Your task to perform on an android device: open app "Microsoft Authenticator" (install if not already installed) and enter user name: "Cornell@yahoo.com" and password: "bothersome" Image 0: 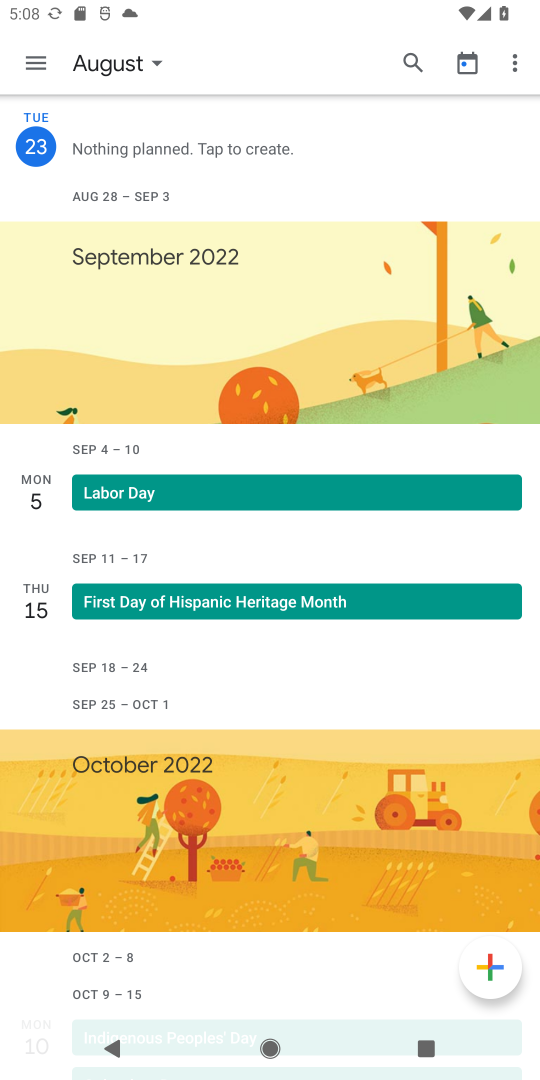
Step 0: press home button
Your task to perform on an android device: open app "Microsoft Authenticator" (install if not already installed) and enter user name: "Cornell@yahoo.com" and password: "bothersome" Image 1: 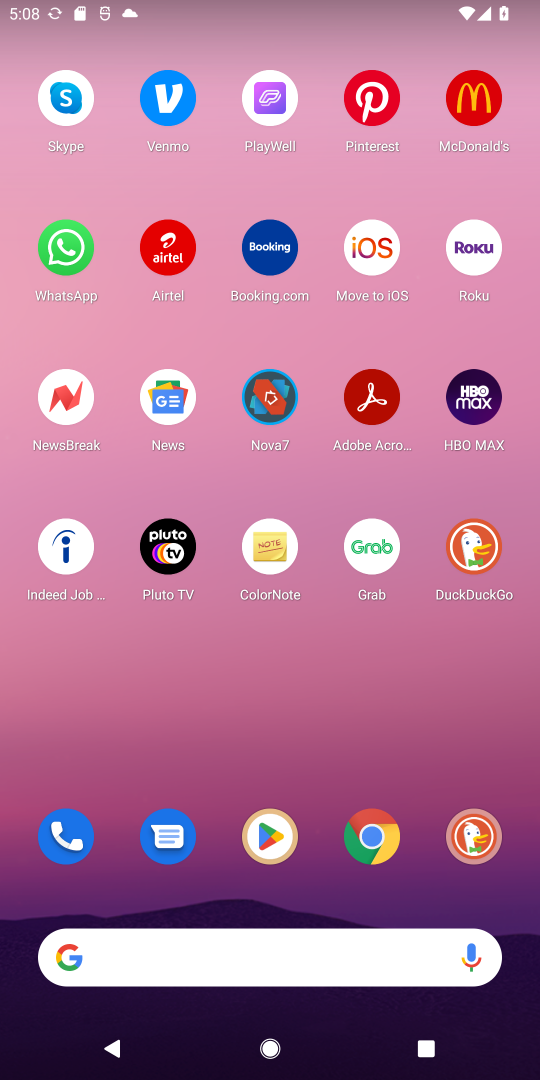
Step 1: click (276, 838)
Your task to perform on an android device: open app "Microsoft Authenticator" (install if not already installed) and enter user name: "Cornell@yahoo.com" and password: "bothersome" Image 2: 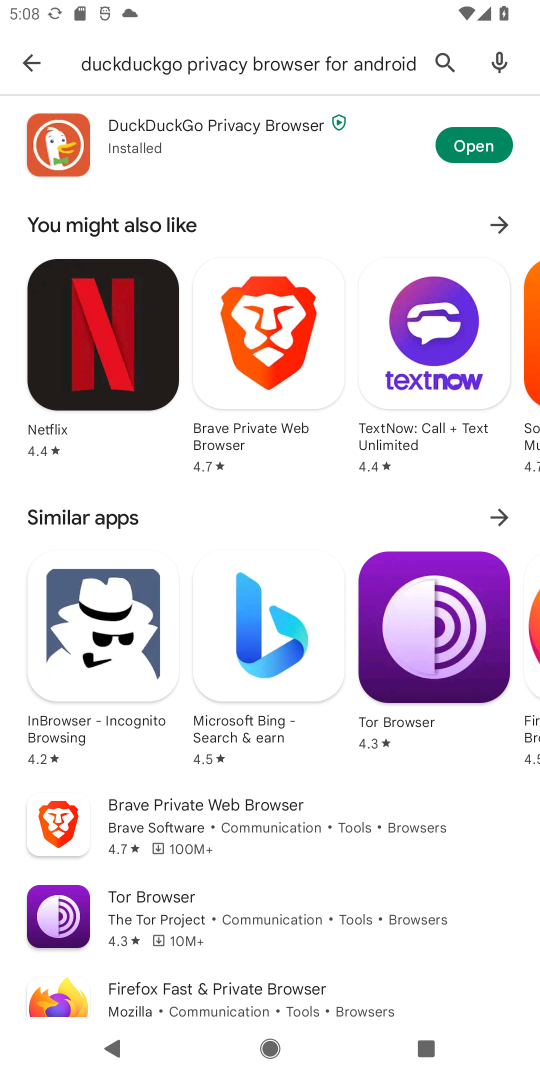
Step 2: click (441, 61)
Your task to perform on an android device: open app "Microsoft Authenticator" (install if not already installed) and enter user name: "Cornell@yahoo.com" and password: "bothersome" Image 3: 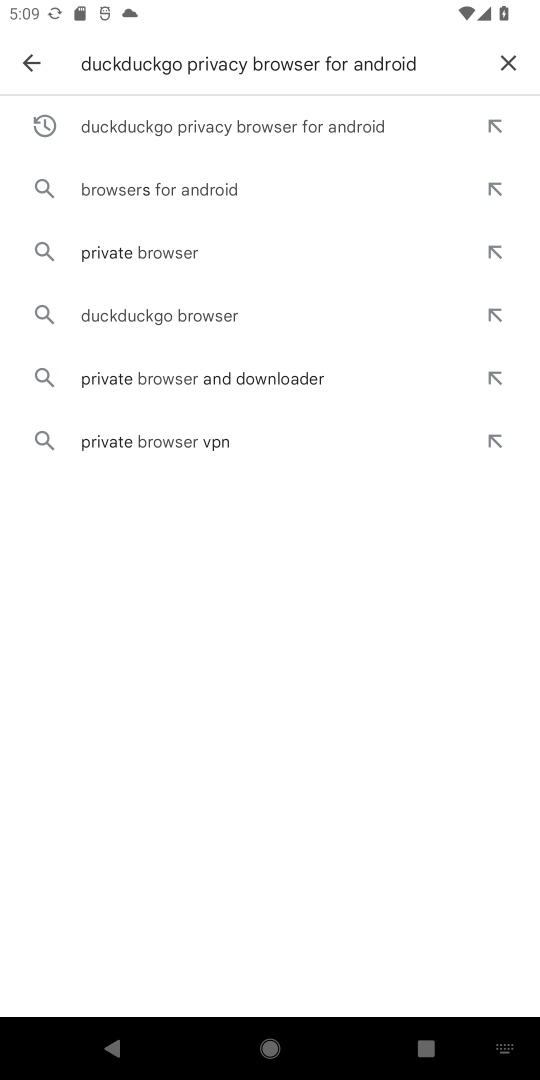
Step 3: click (507, 62)
Your task to perform on an android device: open app "Microsoft Authenticator" (install if not already installed) and enter user name: "Cornell@yahoo.com" and password: "bothersome" Image 4: 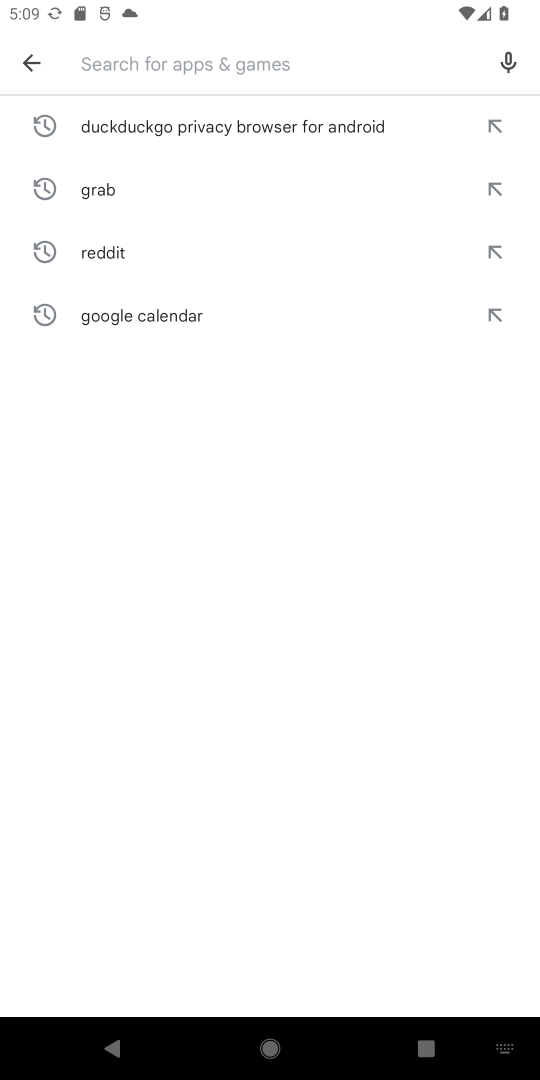
Step 4: type "Microsoft Authenticator"
Your task to perform on an android device: open app "Microsoft Authenticator" (install if not already installed) and enter user name: "Cornell@yahoo.com" and password: "bothersome" Image 5: 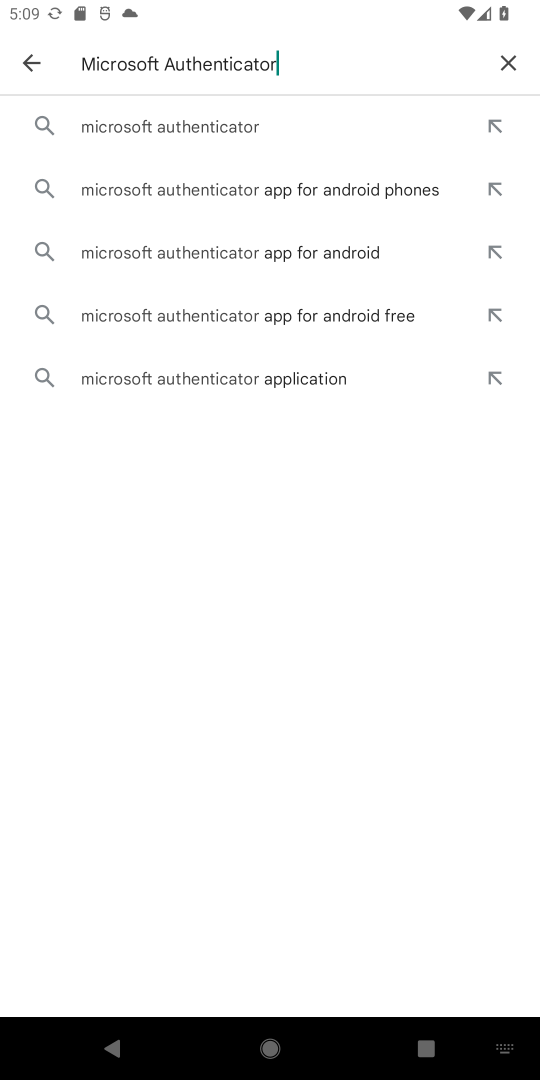
Step 5: click (162, 131)
Your task to perform on an android device: open app "Microsoft Authenticator" (install if not already installed) and enter user name: "Cornell@yahoo.com" and password: "bothersome" Image 6: 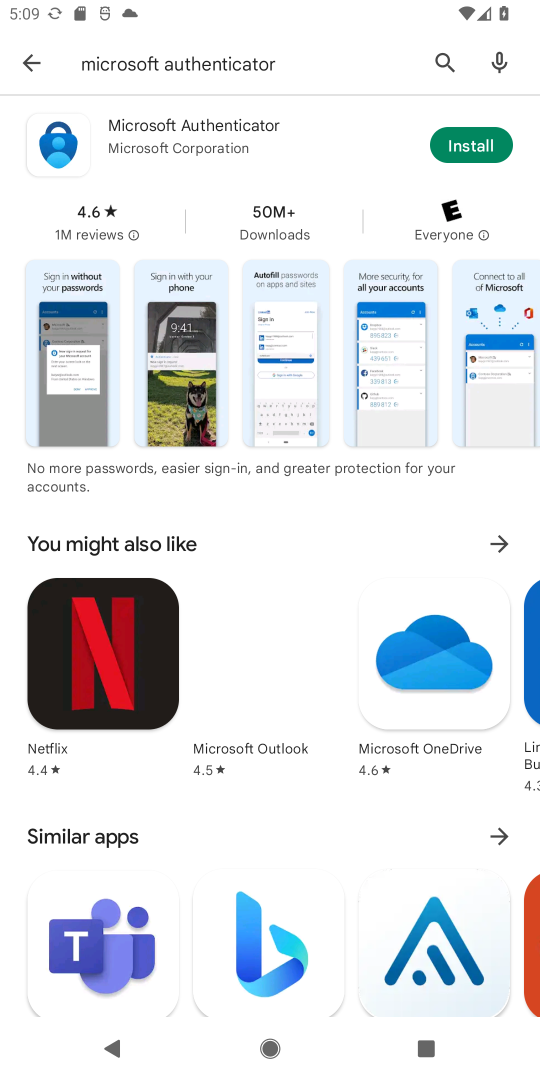
Step 6: click (461, 143)
Your task to perform on an android device: open app "Microsoft Authenticator" (install if not already installed) and enter user name: "Cornell@yahoo.com" and password: "bothersome" Image 7: 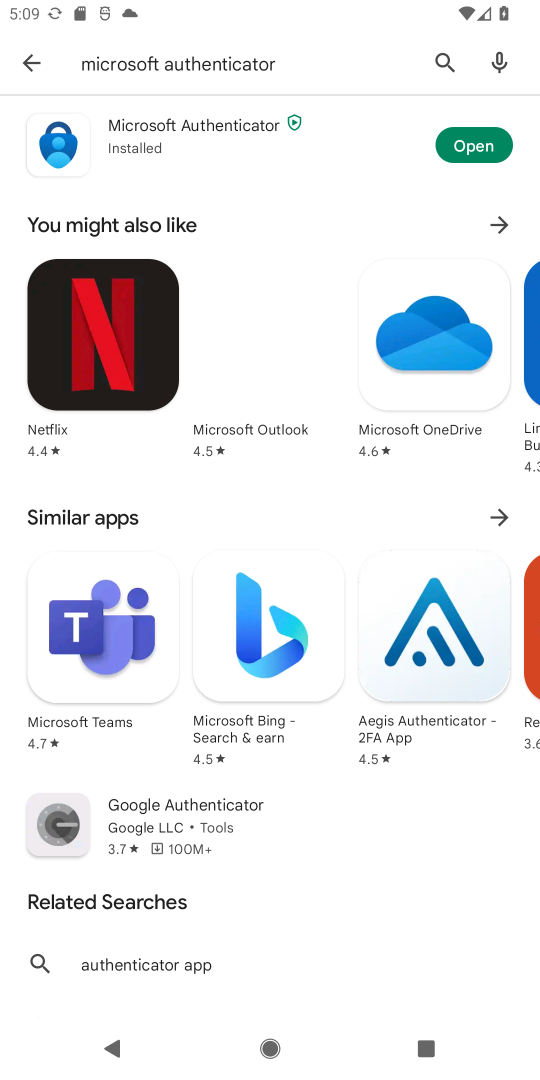
Step 7: click (473, 146)
Your task to perform on an android device: open app "Microsoft Authenticator" (install if not already installed) and enter user name: "Cornell@yahoo.com" and password: "bothersome" Image 8: 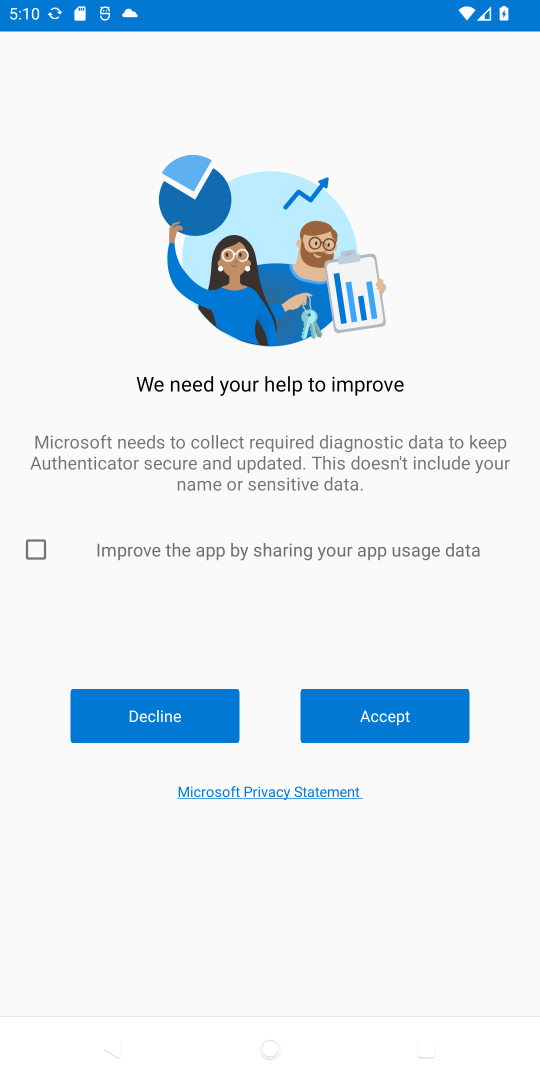
Step 8: click (34, 547)
Your task to perform on an android device: open app "Microsoft Authenticator" (install if not already installed) and enter user name: "Cornell@yahoo.com" and password: "bothersome" Image 9: 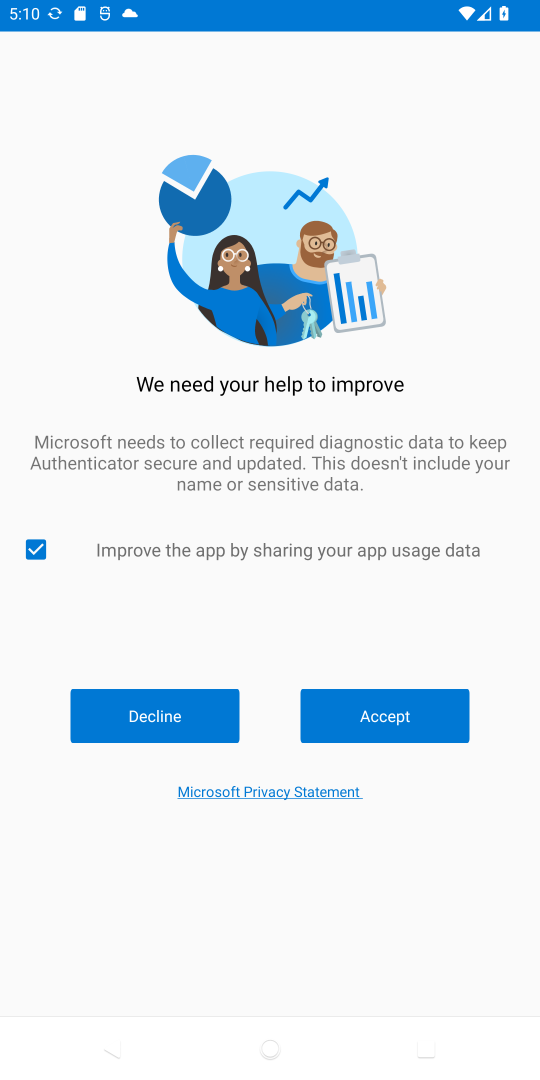
Step 9: click (394, 716)
Your task to perform on an android device: open app "Microsoft Authenticator" (install if not already installed) and enter user name: "Cornell@yahoo.com" and password: "bothersome" Image 10: 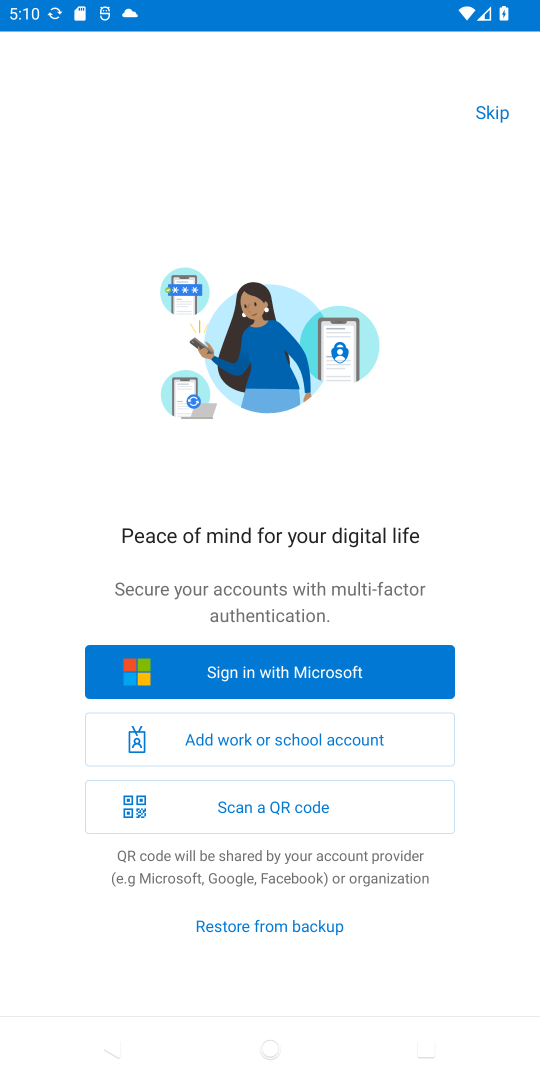
Step 10: click (265, 672)
Your task to perform on an android device: open app "Microsoft Authenticator" (install if not already installed) and enter user name: "Cornell@yahoo.com" and password: "bothersome" Image 11: 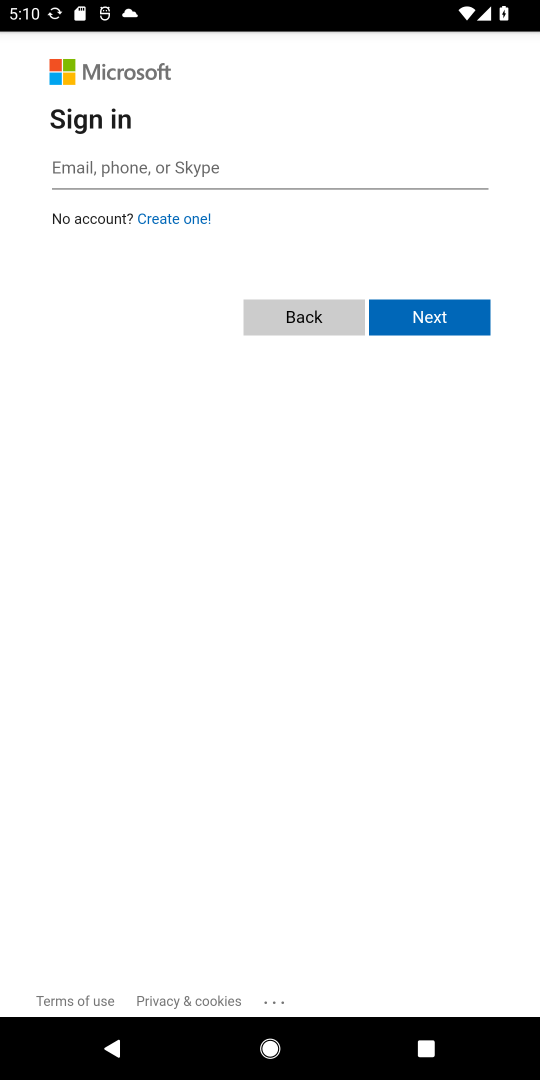
Step 11: click (96, 162)
Your task to perform on an android device: open app "Microsoft Authenticator" (install if not already installed) and enter user name: "Cornell@yahoo.com" and password: "bothersome" Image 12: 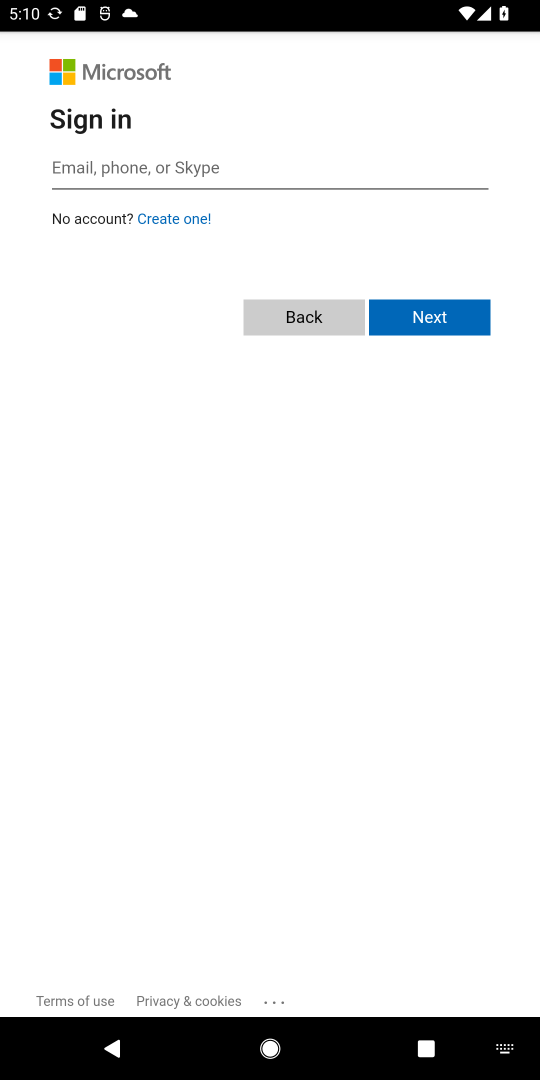
Step 12: type "Cornell@yahoo.com"
Your task to perform on an android device: open app "Microsoft Authenticator" (install if not already installed) and enter user name: "Cornell@yahoo.com" and password: "bothersome" Image 13: 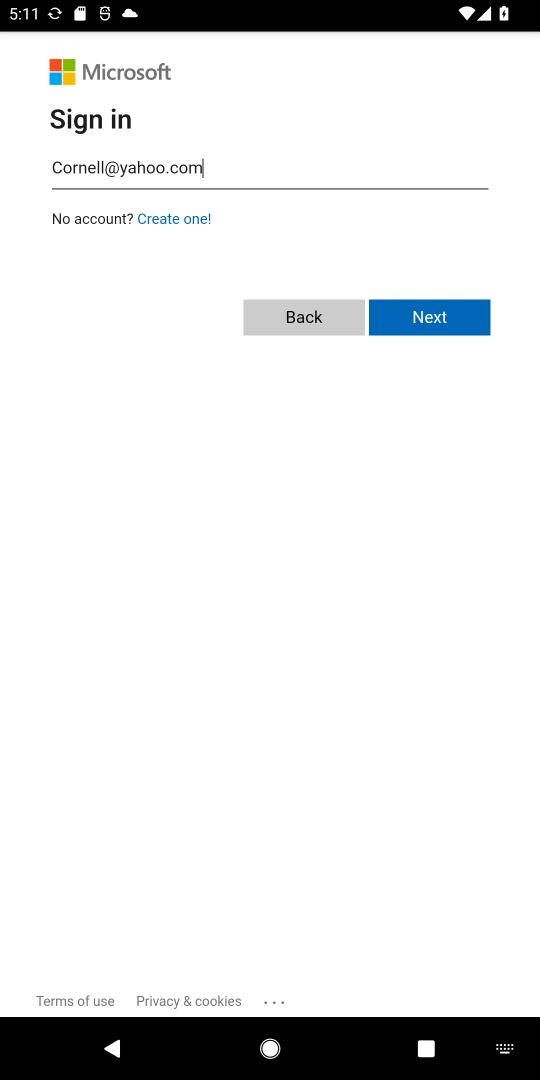
Step 13: task complete